Your task to perform on an android device: Go to notification settings Image 0: 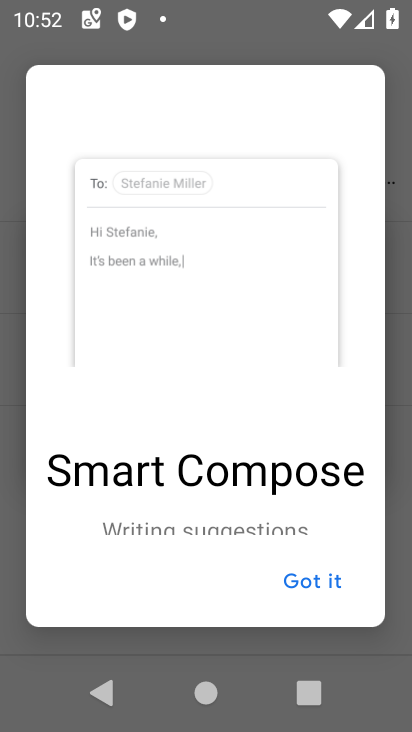
Step 0: click (305, 588)
Your task to perform on an android device: Go to notification settings Image 1: 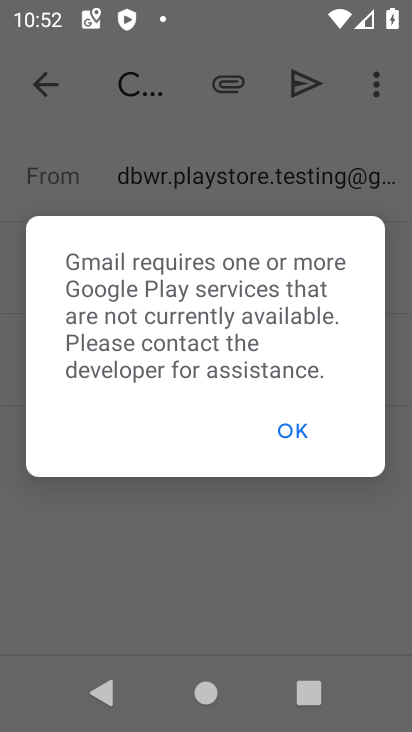
Step 1: press home button
Your task to perform on an android device: Go to notification settings Image 2: 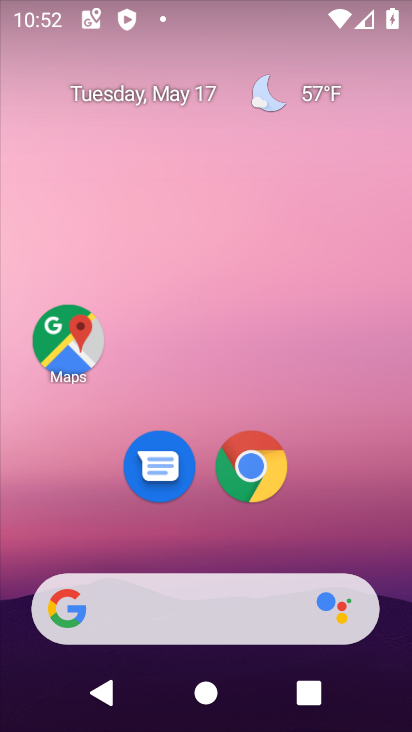
Step 2: drag from (219, 540) to (167, 73)
Your task to perform on an android device: Go to notification settings Image 3: 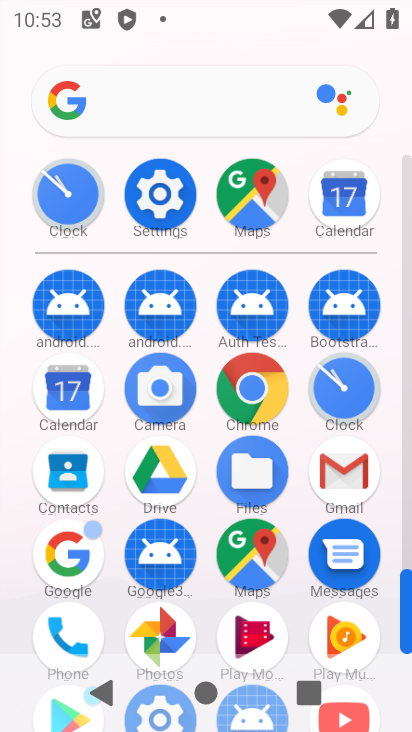
Step 3: click (166, 211)
Your task to perform on an android device: Go to notification settings Image 4: 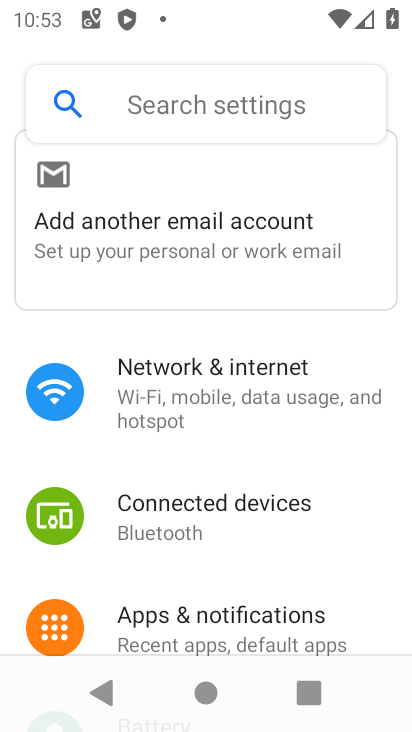
Step 4: click (250, 633)
Your task to perform on an android device: Go to notification settings Image 5: 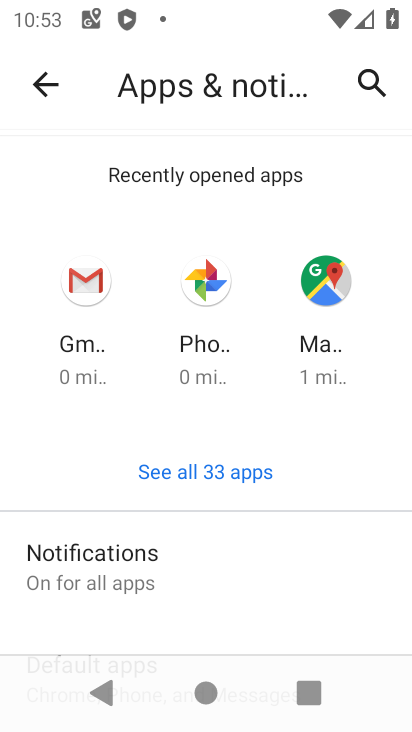
Step 5: click (187, 548)
Your task to perform on an android device: Go to notification settings Image 6: 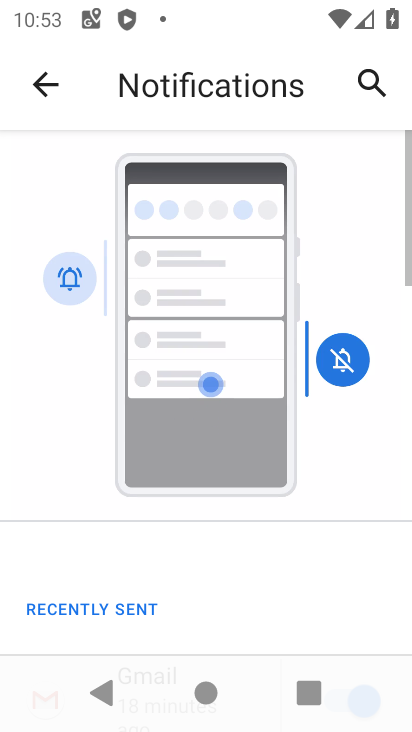
Step 6: drag from (200, 542) to (142, 71)
Your task to perform on an android device: Go to notification settings Image 7: 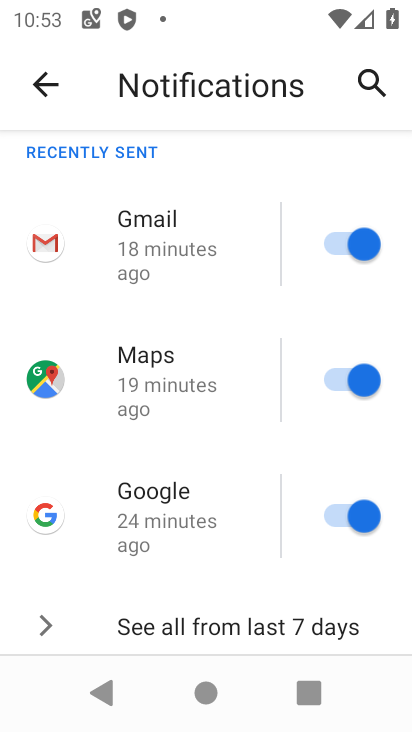
Step 7: drag from (183, 400) to (173, 200)
Your task to perform on an android device: Go to notification settings Image 8: 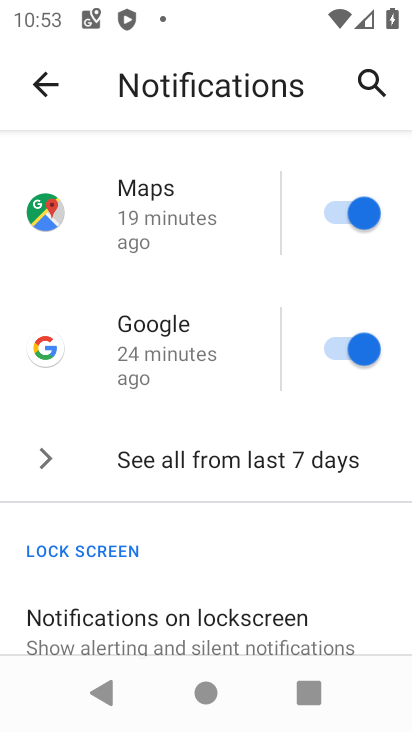
Step 8: click (183, 457)
Your task to perform on an android device: Go to notification settings Image 9: 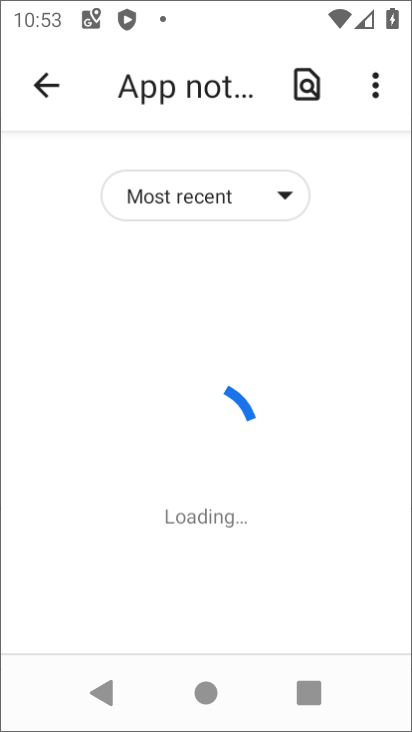
Step 9: task complete